Your task to perform on an android device: Open calendar and show me the third week of next month Image 0: 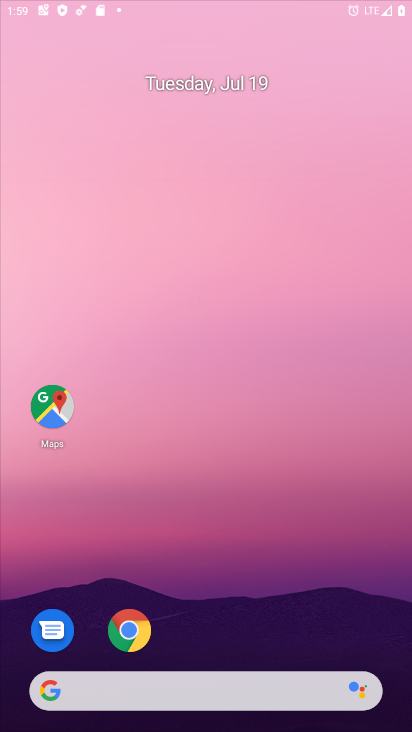
Step 0: press home button
Your task to perform on an android device: Open calendar and show me the third week of next month Image 1: 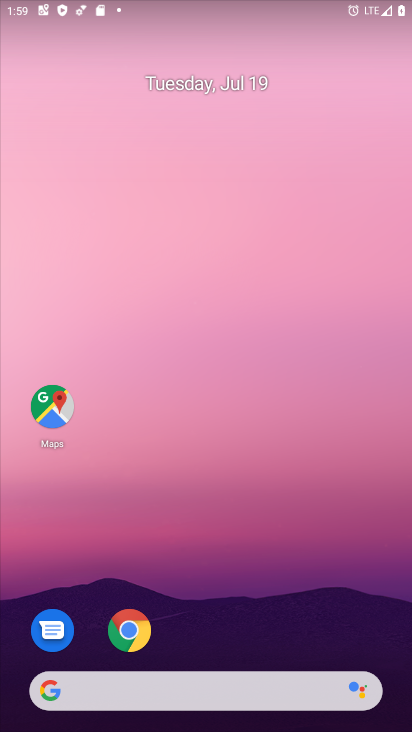
Step 1: drag from (206, 648) to (297, 37)
Your task to perform on an android device: Open calendar and show me the third week of next month Image 2: 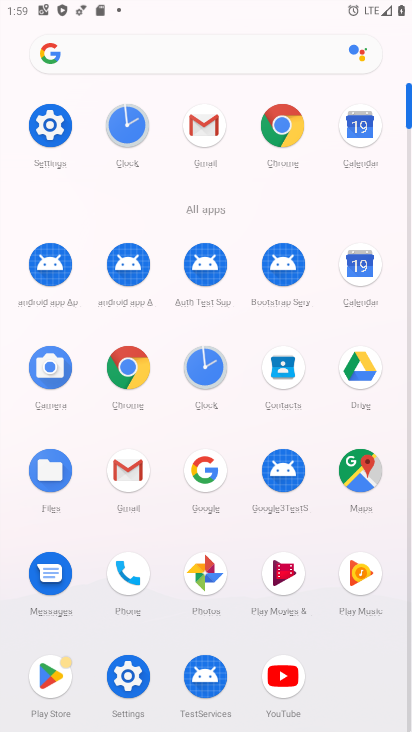
Step 2: click (364, 264)
Your task to perform on an android device: Open calendar and show me the third week of next month Image 3: 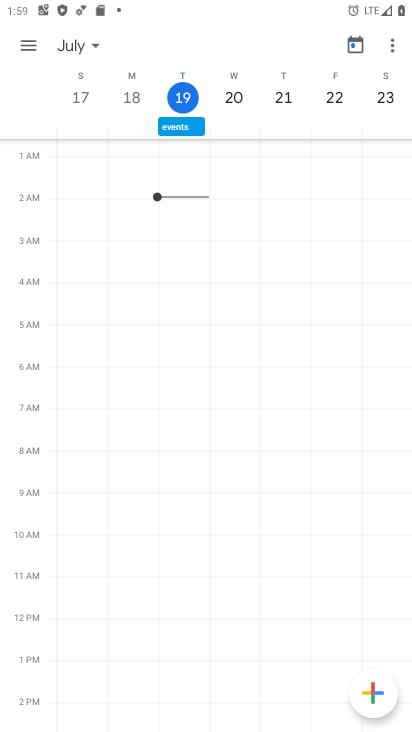
Step 3: drag from (389, 95) to (22, 165)
Your task to perform on an android device: Open calendar and show me the third week of next month Image 4: 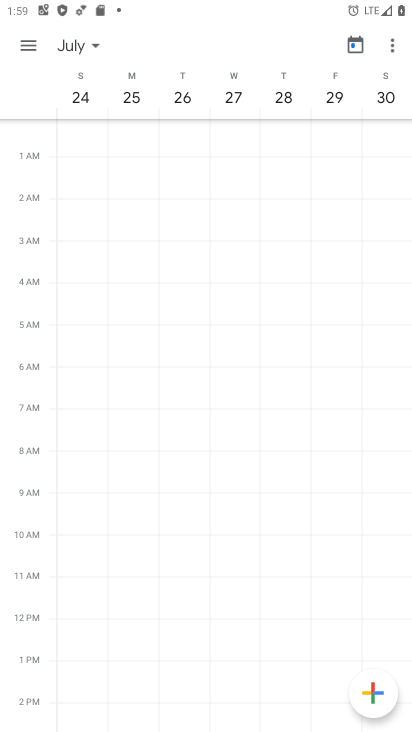
Step 4: drag from (393, 95) to (19, 236)
Your task to perform on an android device: Open calendar and show me the third week of next month Image 5: 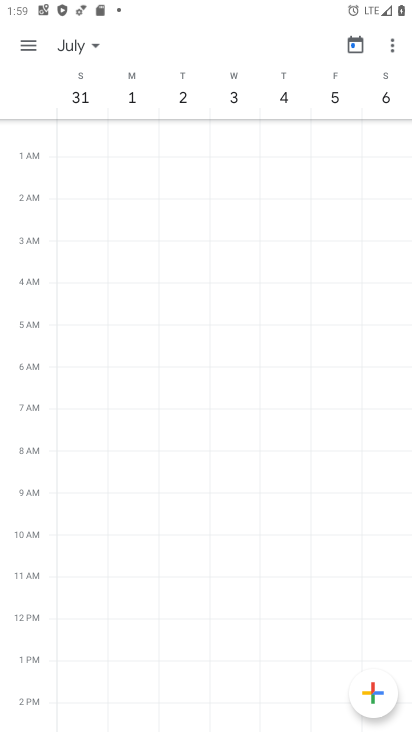
Step 5: drag from (386, 91) to (6, 124)
Your task to perform on an android device: Open calendar and show me the third week of next month Image 6: 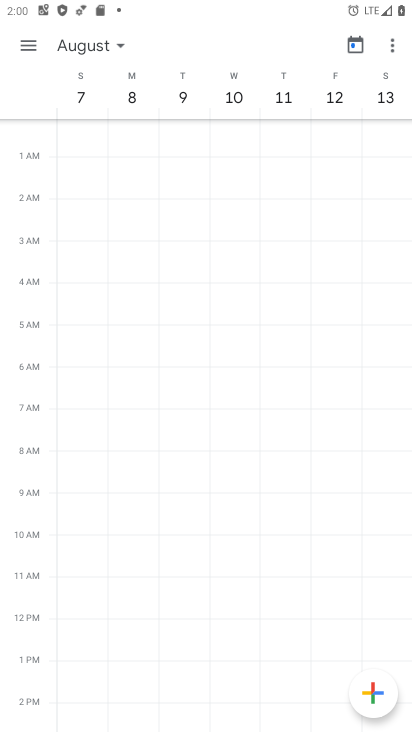
Step 6: drag from (401, 98) to (33, 101)
Your task to perform on an android device: Open calendar and show me the third week of next month Image 7: 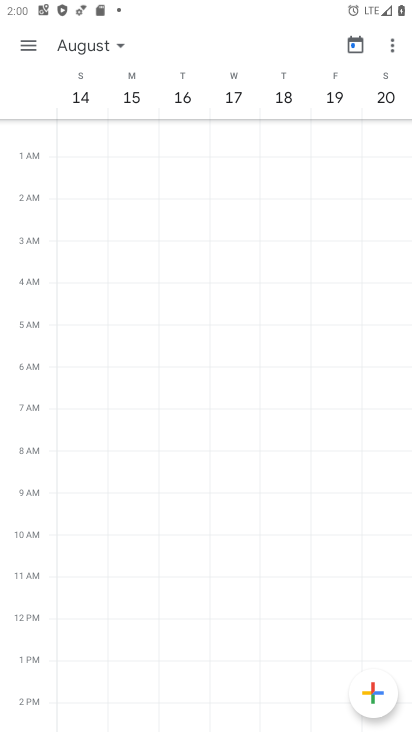
Step 7: click (80, 97)
Your task to perform on an android device: Open calendar and show me the third week of next month Image 8: 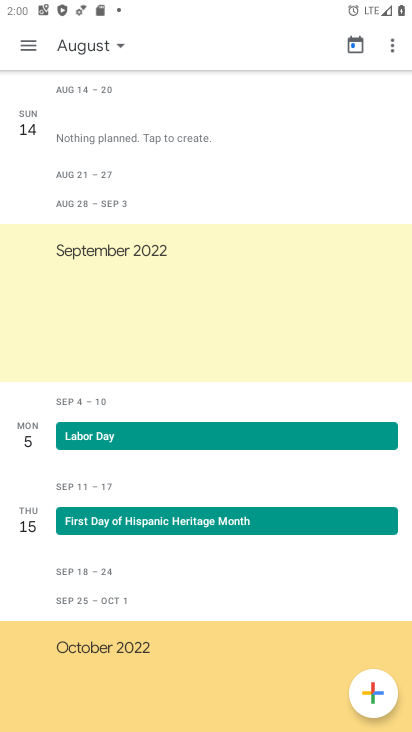
Step 8: task complete